Your task to perform on an android device: turn on the 24-hour format for clock Image 0: 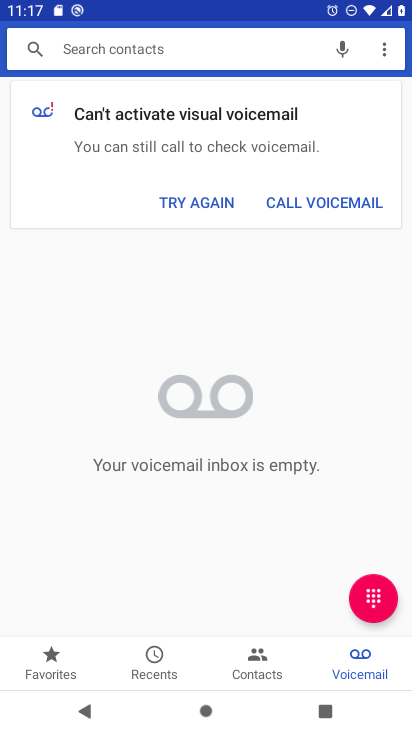
Step 0: press home button
Your task to perform on an android device: turn on the 24-hour format for clock Image 1: 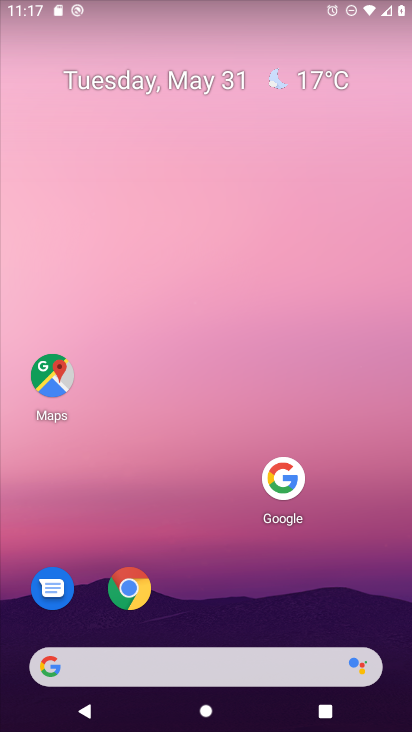
Step 1: drag from (186, 664) to (295, 220)
Your task to perform on an android device: turn on the 24-hour format for clock Image 2: 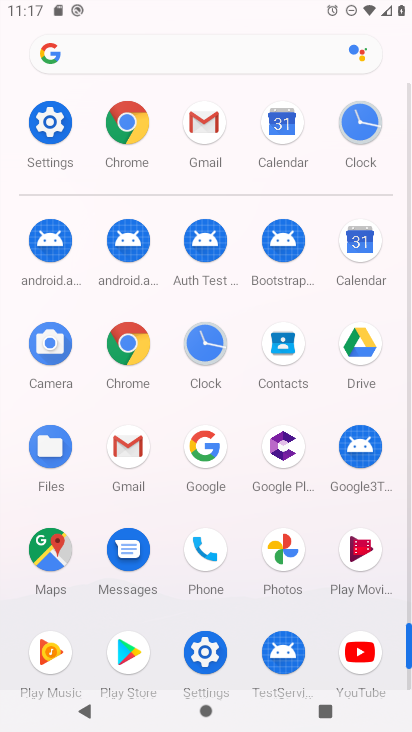
Step 2: click (212, 348)
Your task to perform on an android device: turn on the 24-hour format for clock Image 3: 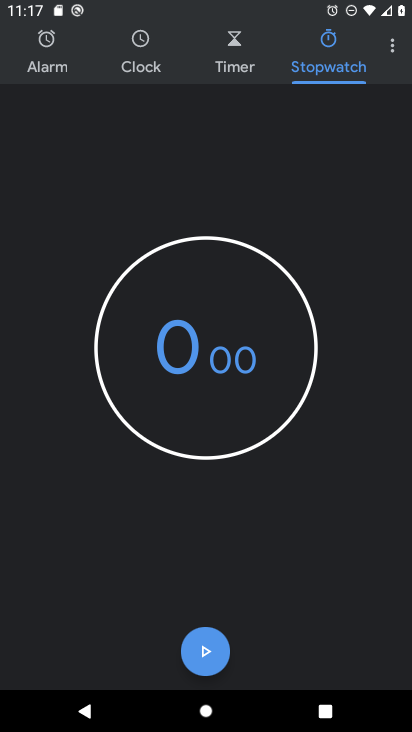
Step 3: click (391, 47)
Your task to perform on an android device: turn on the 24-hour format for clock Image 4: 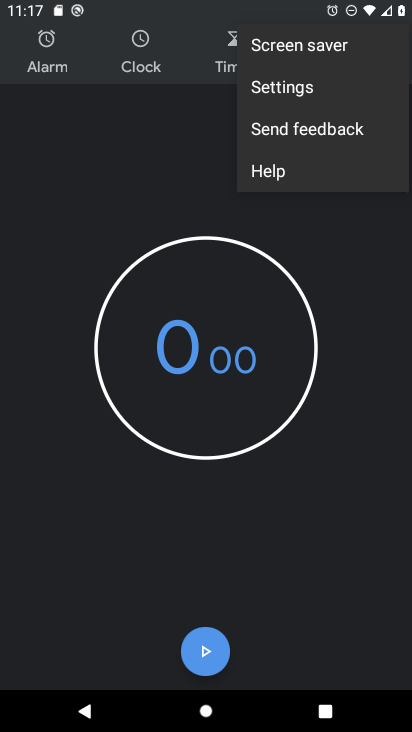
Step 4: click (297, 87)
Your task to perform on an android device: turn on the 24-hour format for clock Image 5: 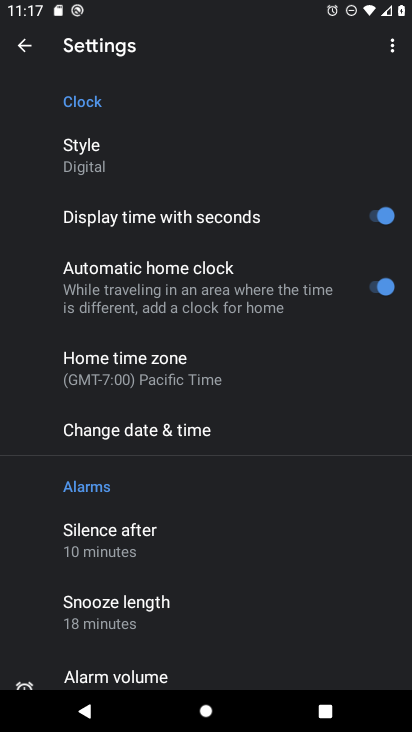
Step 5: click (175, 426)
Your task to perform on an android device: turn on the 24-hour format for clock Image 6: 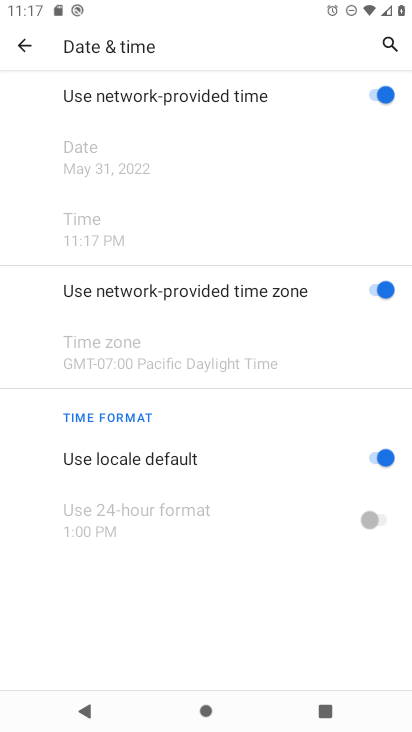
Step 6: click (374, 459)
Your task to perform on an android device: turn on the 24-hour format for clock Image 7: 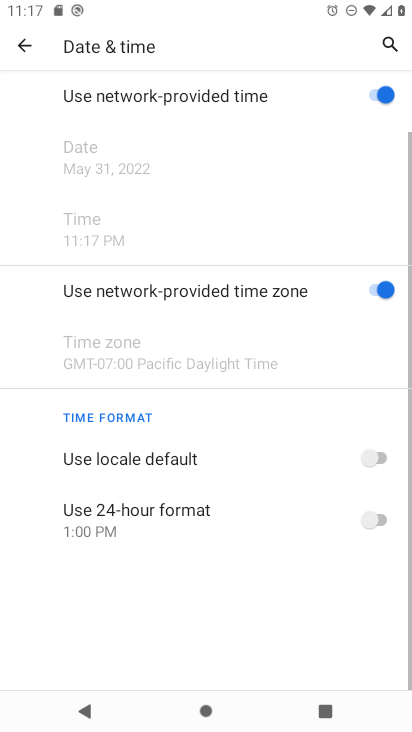
Step 7: click (384, 519)
Your task to perform on an android device: turn on the 24-hour format for clock Image 8: 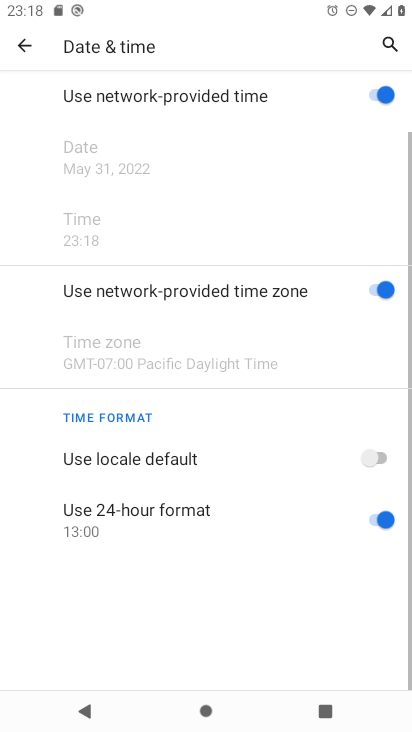
Step 8: task complete